Your task to perform on an android device: Open privacy settings Image 0: 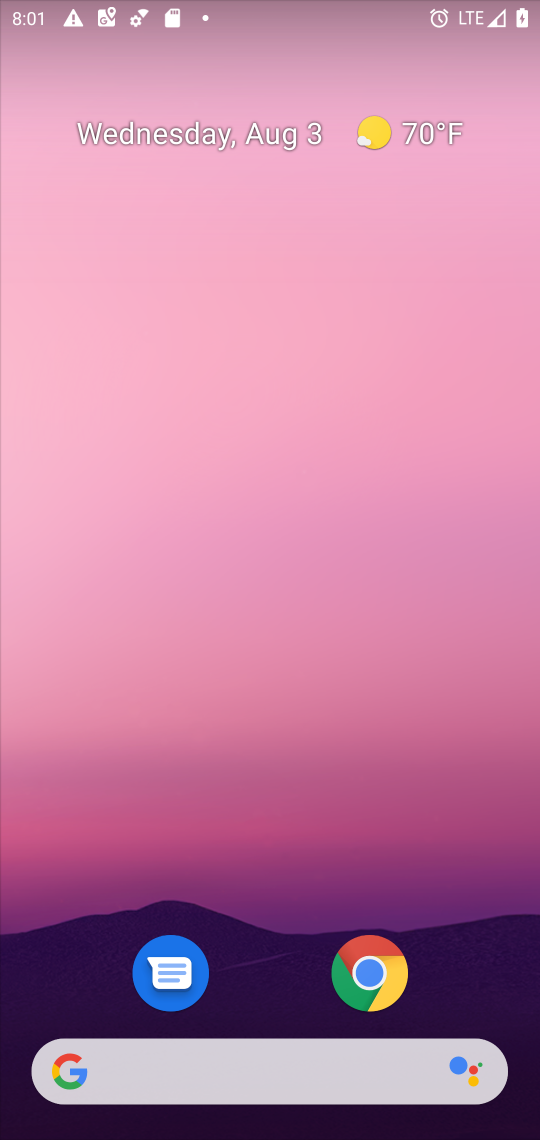
Step 0: drag from (273, 985) to (324, 0)
Your task to perform on an android device: Open privacy settings Image 1: 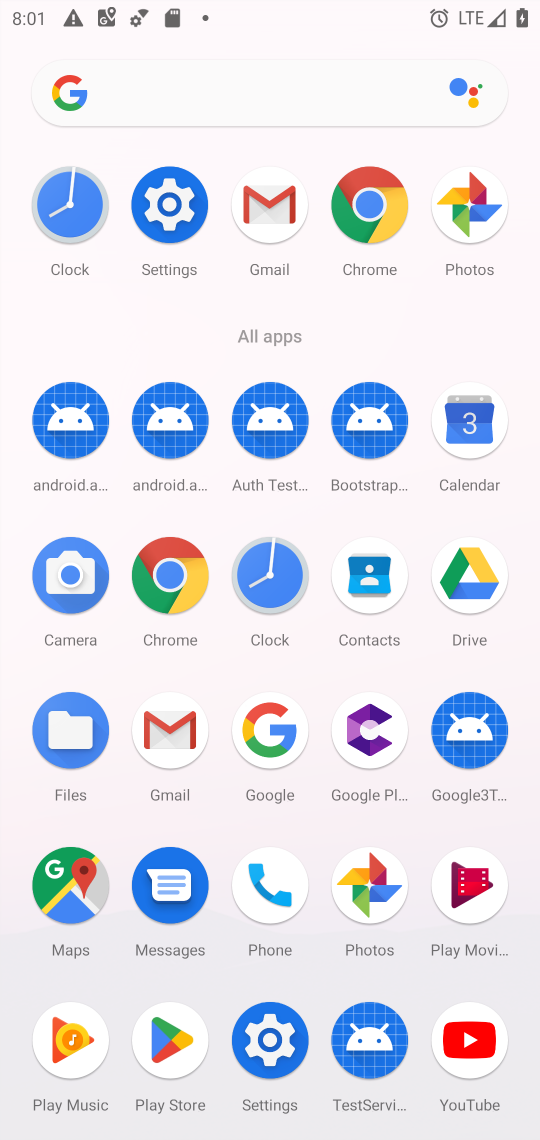
Step 1: click (265, 1029)
Your task to perform on an android device: Open privacy settings Image 2: 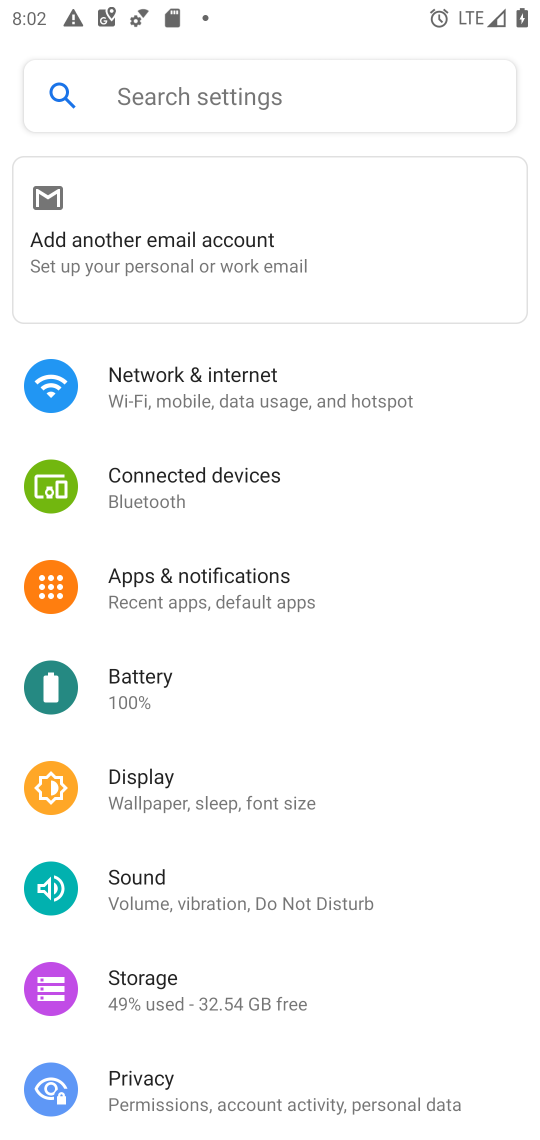
Step 2: click (192, 1077)
Your task to perform on an android device: Open privacy settings Image 3: 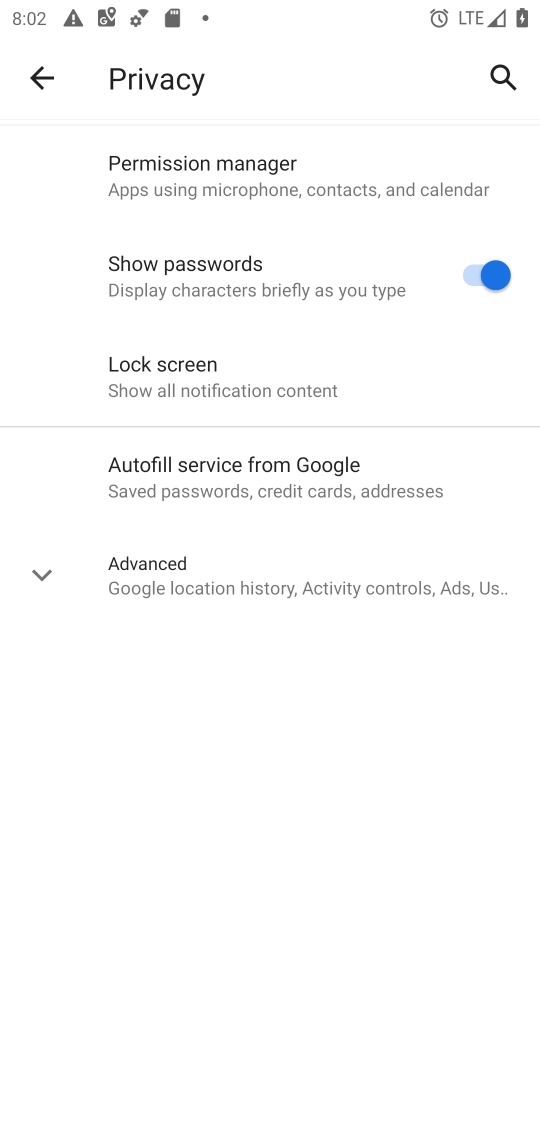
Step 3: click (42, 567)
Your task to perform on an android device: Open privacy settings Image 4: 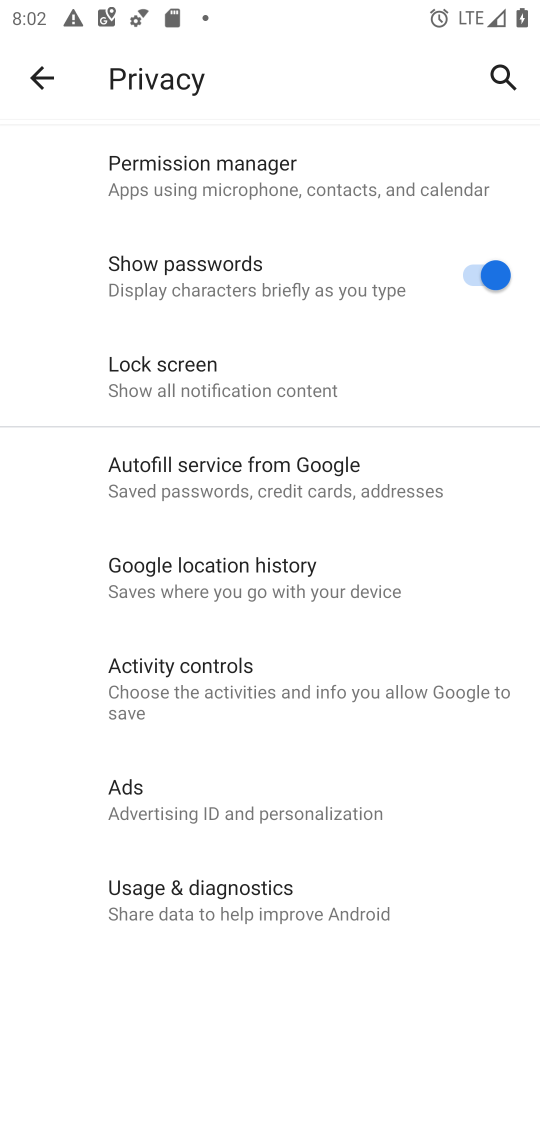
Step 4: task complete